Your task to perform on an android device: Play the last video I watched on Youtube Image 0: 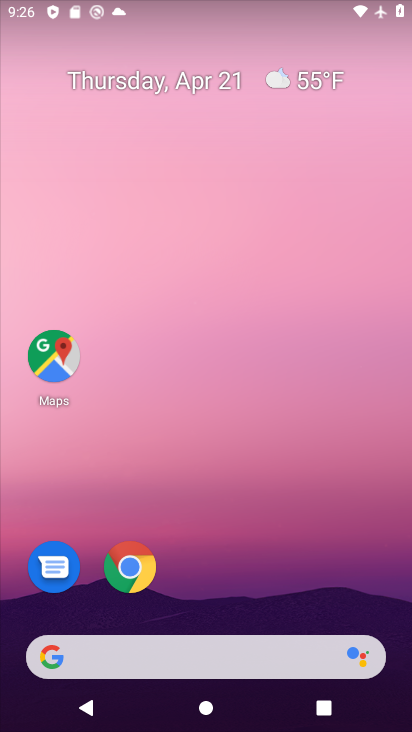
Step 0: drag from (389, 619) to (292, 150)
Your task to perform on an android device: Play the last video I watched on Youtube Image 1: 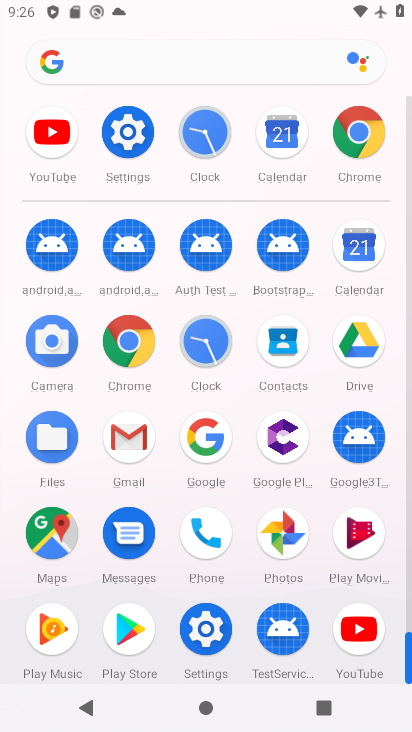
Step 1: click (356, 630)
Your task to perform on an android device: Play the last video I watched on Youtube Image 2: 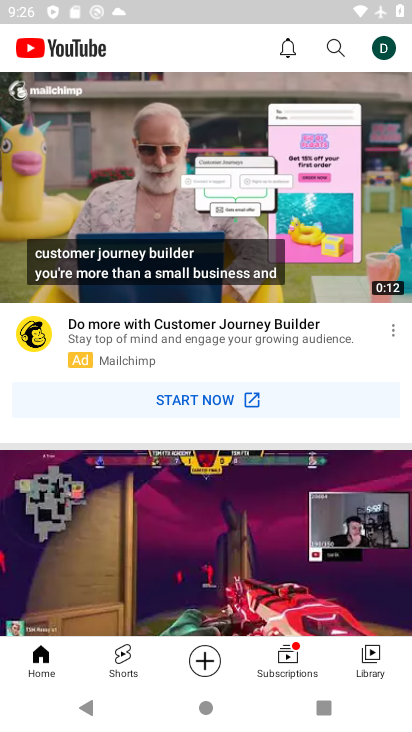
Step 2: click (369, 663)
Your task to perform on an android device: Play the last video I watched on Youtube Image 3: 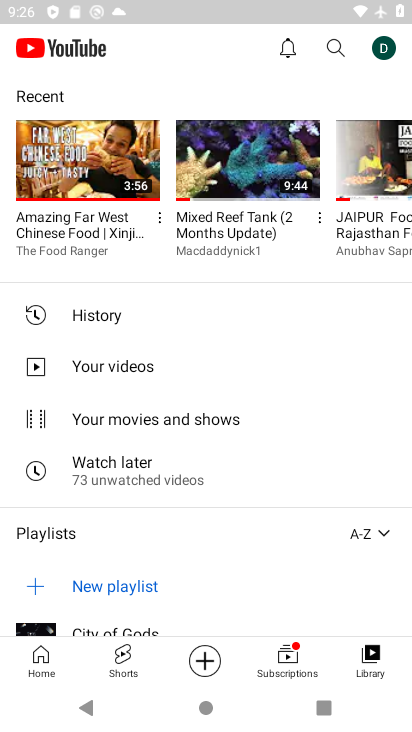
Step 3: click (69, 166)
Your task to perform on an android device: Play the last video I watched on Youtube Image 4: 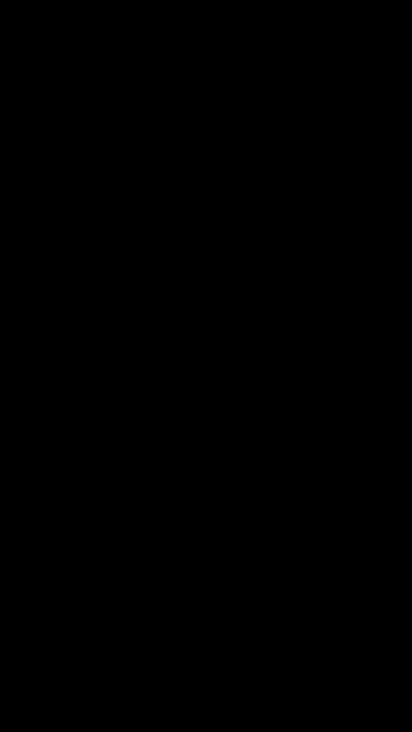
Step 4: task complete